Your task to perform on an android device: Open the stopwatch Image 0: 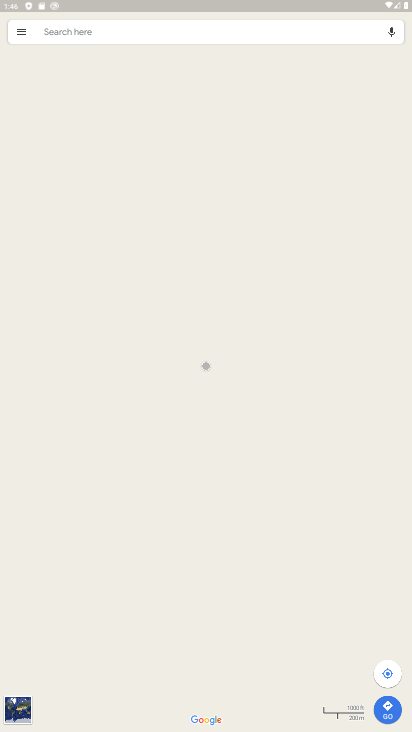
Step 0: press home button
Your task to perform on an android device: Open the stopwatch Image 1: 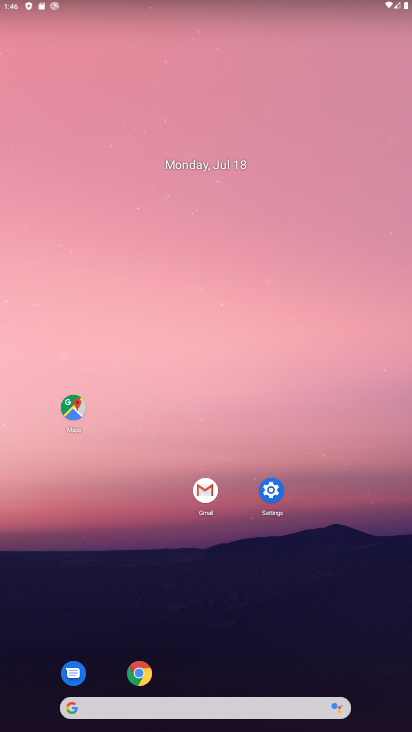
Step 1: drag from (266, 687) to (259, 115)
Your task to perform on an android device: Open the stopwatch Image 2: 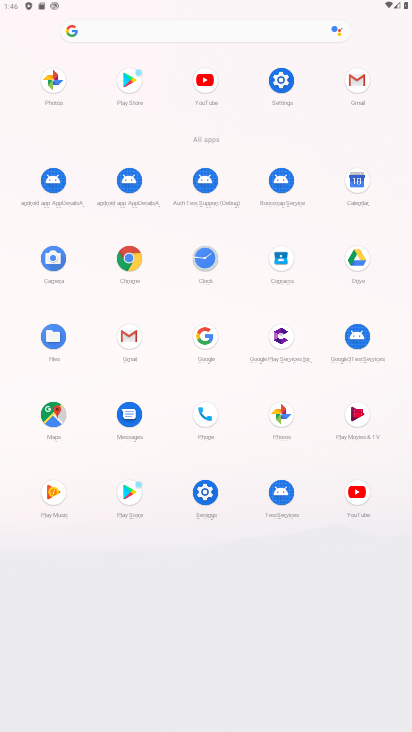
Step 2: click (212, 264)
Your task to perform on an android device: Open the stopwatch Image 3: 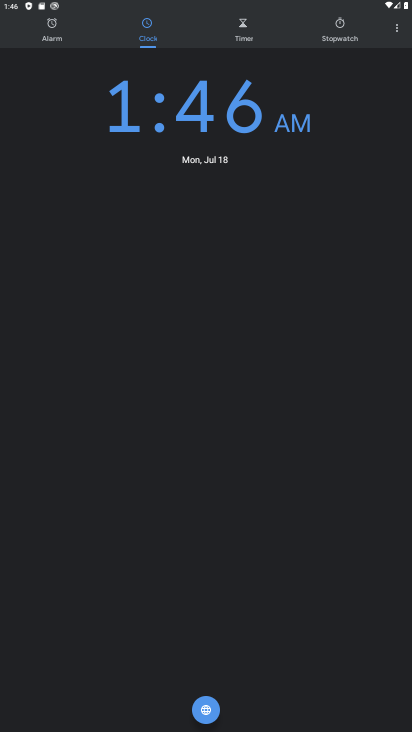
Step 3: click (344, 29)
Your task to perform on an android device: Open the stopwatch Image 4: 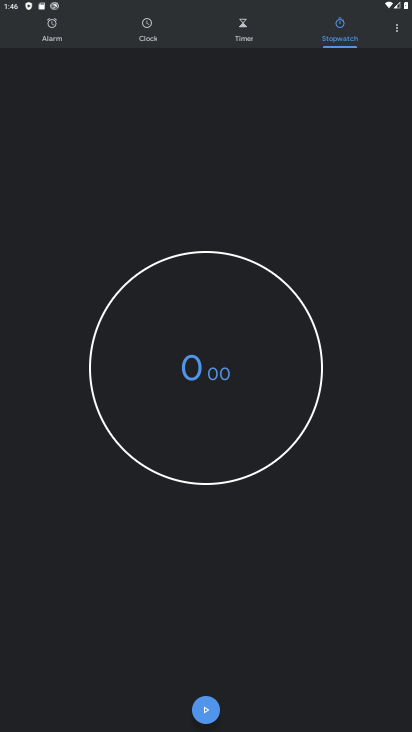
Step 4: click (203, 696)
Your task to perform on an android device: Open the stopwatch Image 5: 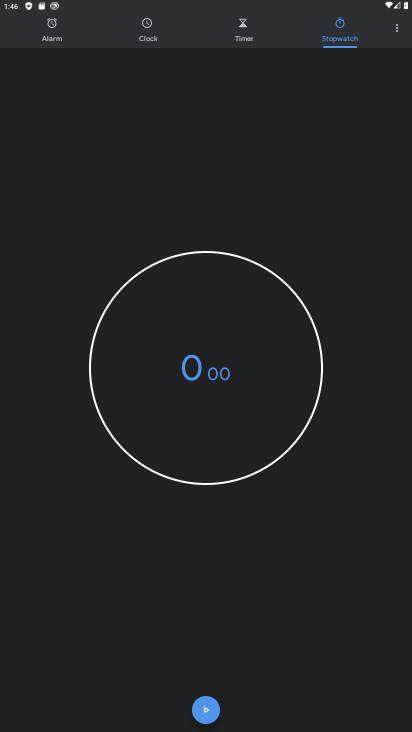
Step 5: click (205, 714)
Your task to perform on an android device: Open the stopwatch Image 6: 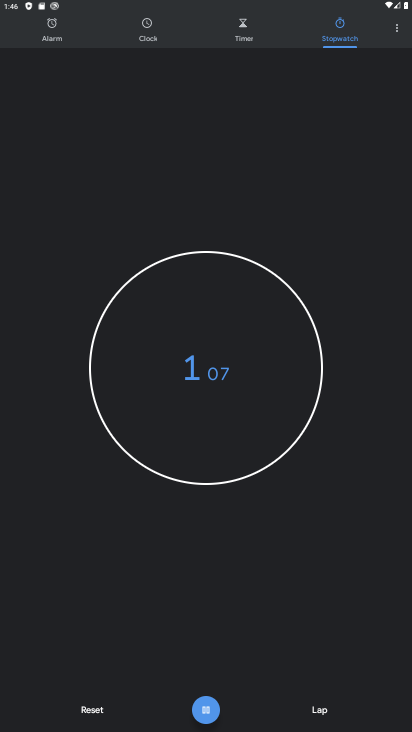
Step 6: click (201, 713)
Your task to perform on an android device: Open the stopwatch Image 7: 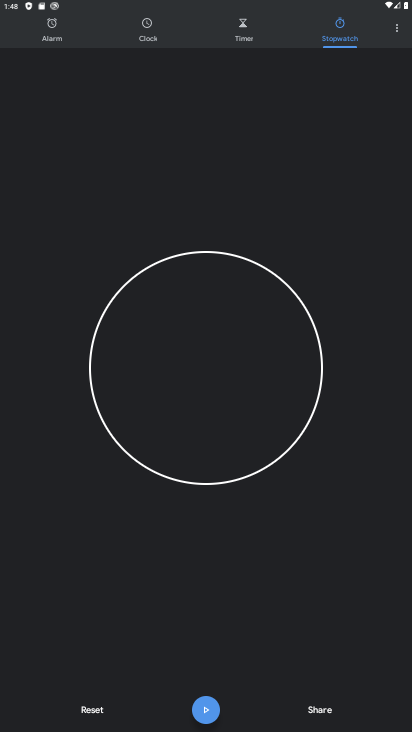
Step 7: task complete